Your task to perform on an android device: turn on airplane mode Image 0: 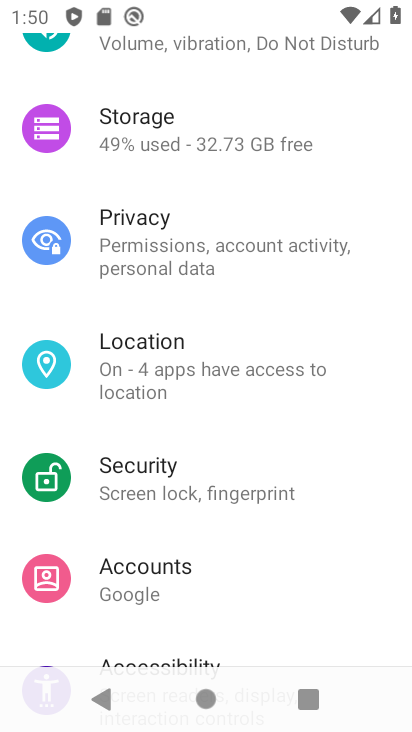
Step 0: drag from (286, 189) to (222, 652)
Your task to perform on an android device: turn on airplane mode Image 1: 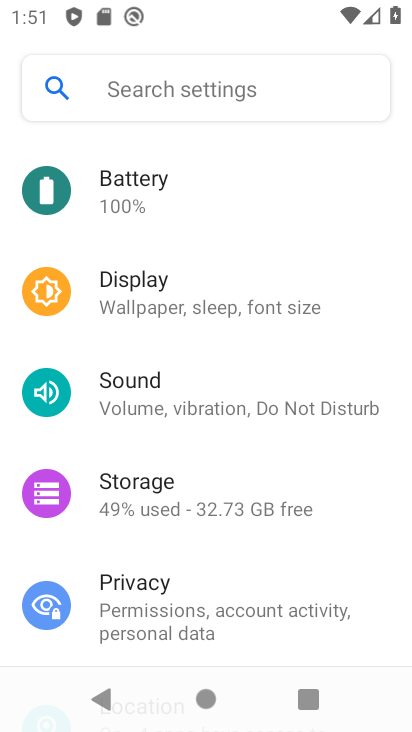
Step 1: drag from (244, 242) to (224, 574)
Your task to perform on an android device: turn on airplane mode Image 2: 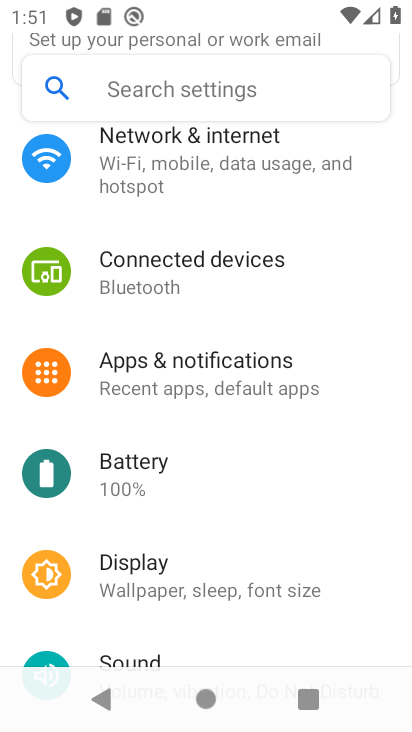
Step 2: click (202, 158)
Your task to perform on an android device: turn on airplane mode Image 3: 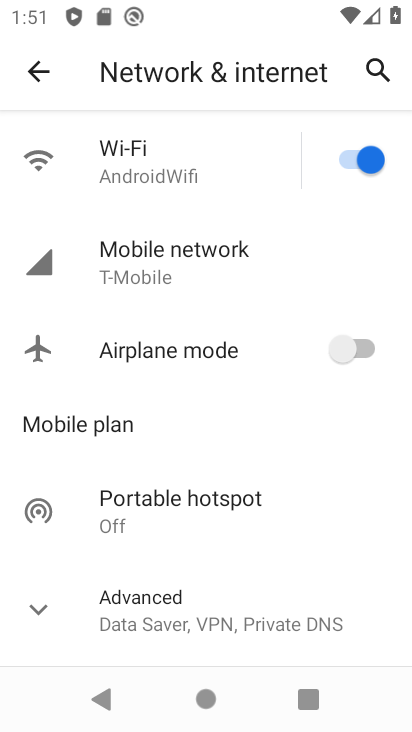
Step 3: click (374, 344)
Your task to perform on an android device: turn on airplane mode Image 4: 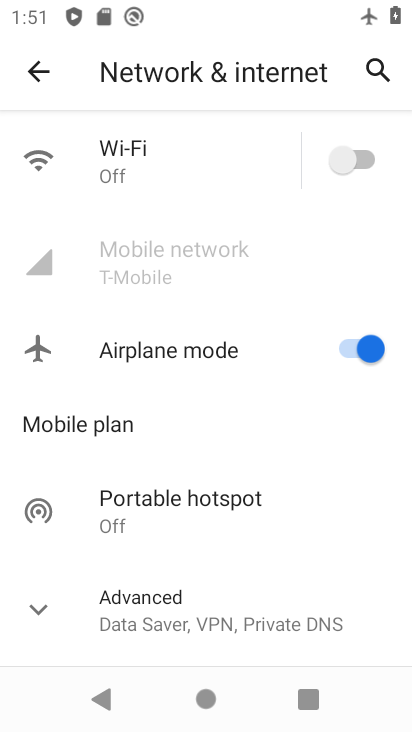
Step 4: task complete